Your task to perform on an android device: Open maps Image 0: 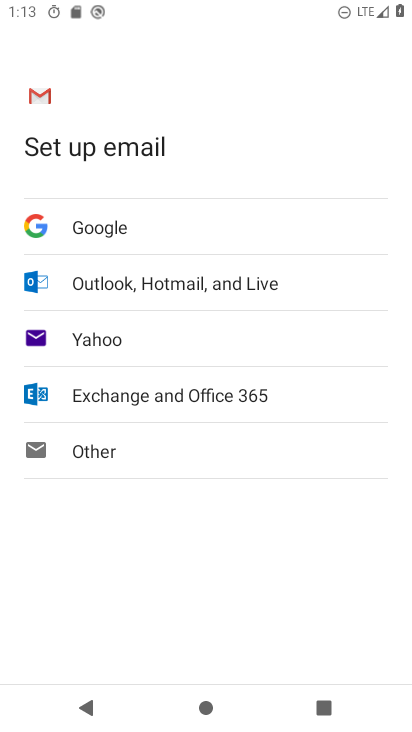
Step 0: press home button
Your task to perform on an android device: Open maps Image 1: 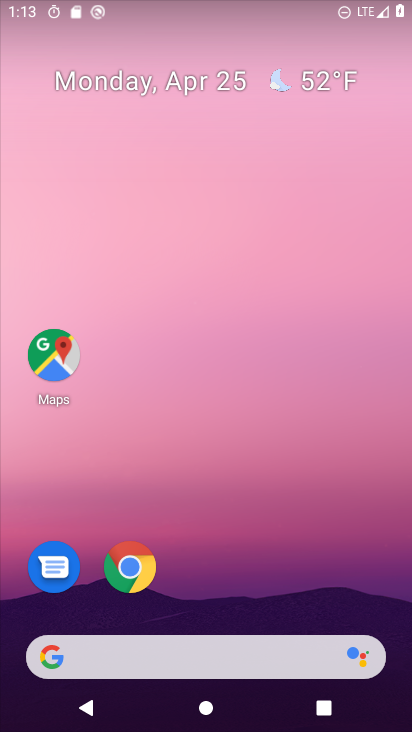
Step 1: click (56, 348)
Your task to perform on an android device: Open maps Image 2: 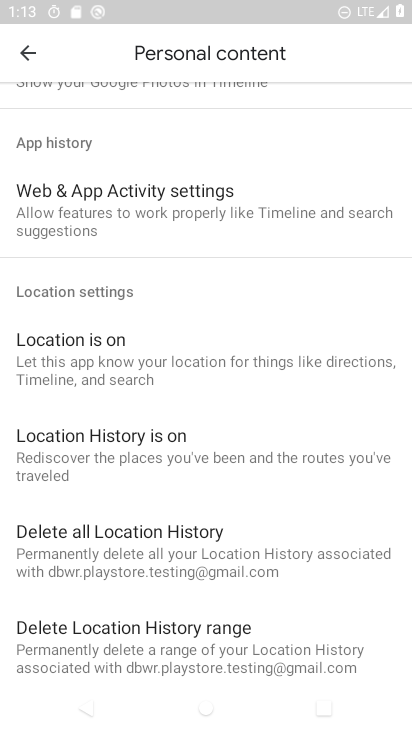
Step 2: click (28, 46)
Your task to perform on an android device: Open maps Image 3: 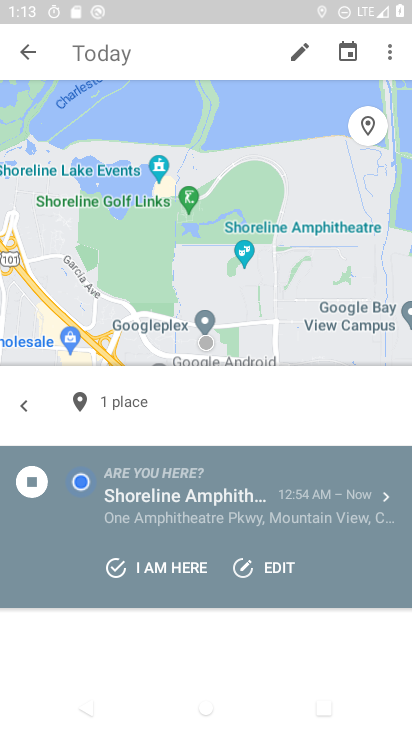
Step 3: click (30, 46)
Your task to perform on an android device: Open maps Image 4: 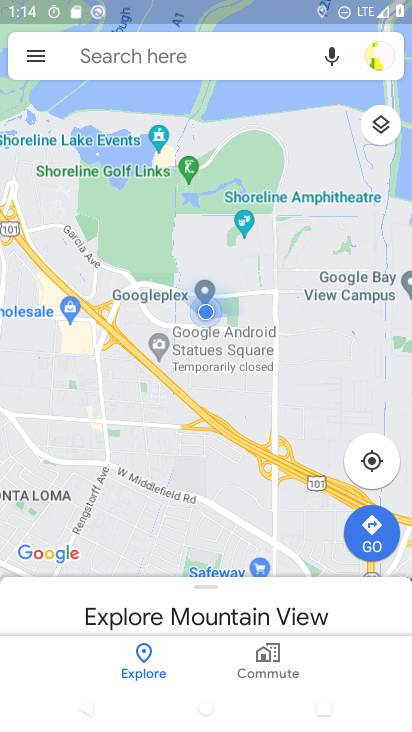
Step 4: task complete